Your task to perform on an android device: turn off location Image 0: 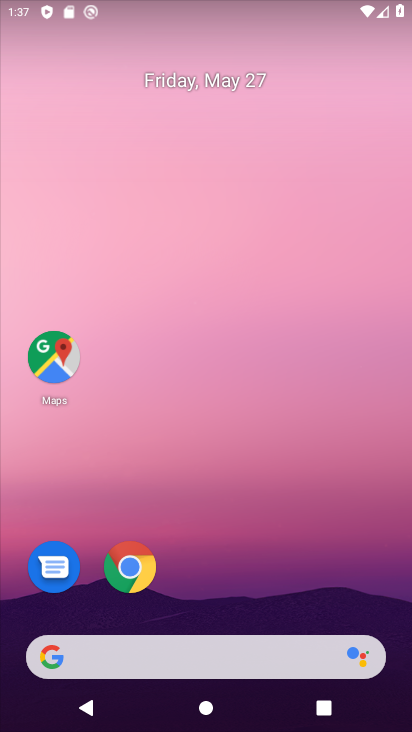
Step 0: drag from (214, 599) to (254, 156)
Your task to perform on an android device: turn off location Image 1: 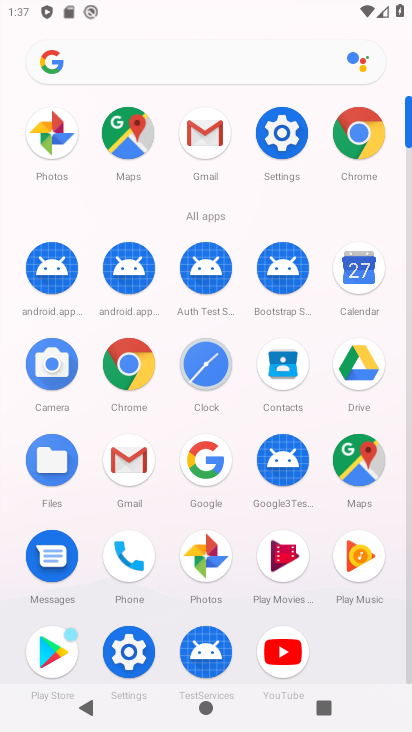
Step 1: click (290, 138)
Your task to perform on an android device: turn off location Image 2: 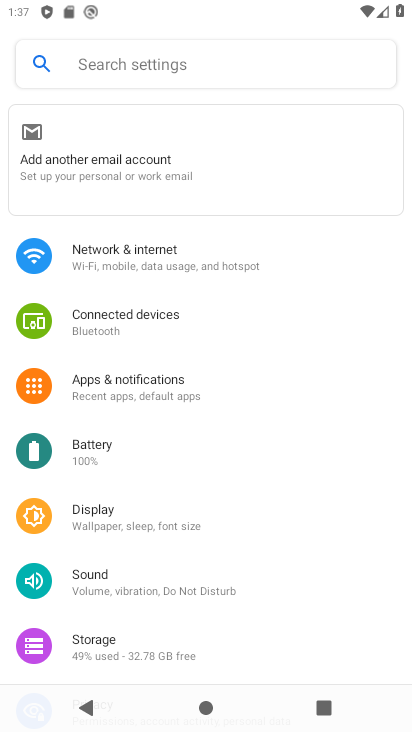
Step 2: drag from (163, 596) to (143, 280)
Your task to perform on an android device: turn off location Image 3: 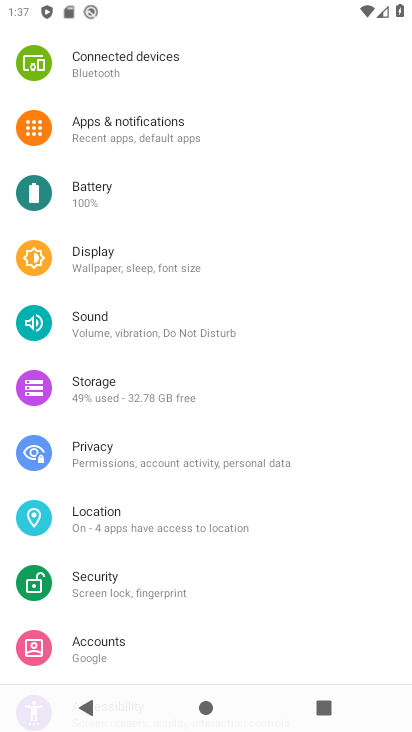
Step 3: click (117, 524)
Your task to perform on an android device: turn off location Image 4: 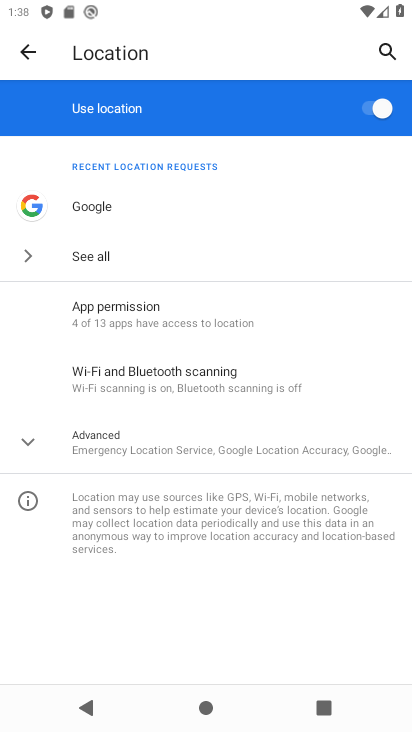
Step 4: click (382, 105)
Your task to perform on an android device: turn off location Image 5: 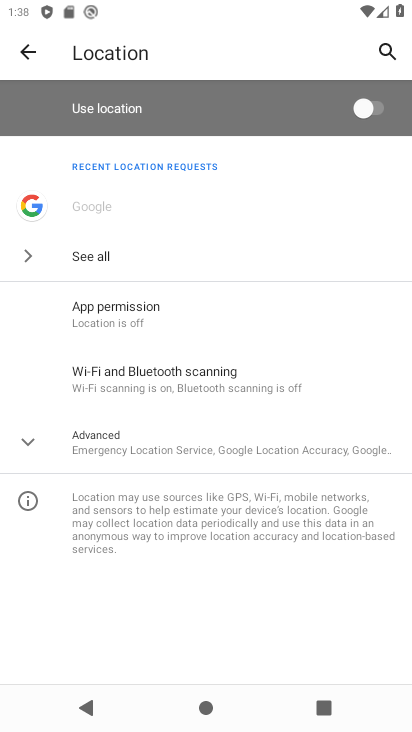
Step 5: task complete